Your task to perform on an android device: turn off airplane mode Image 0: 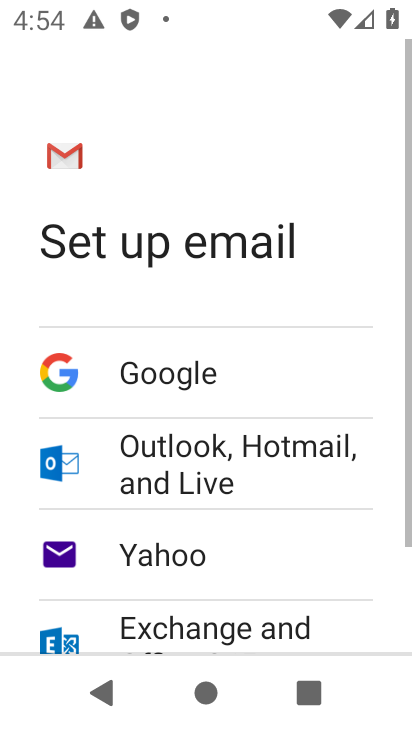
Step 0: drag from (135, 492) to (178, 147)
Your task to perform on an android device: turn off airplane mode Image 1: 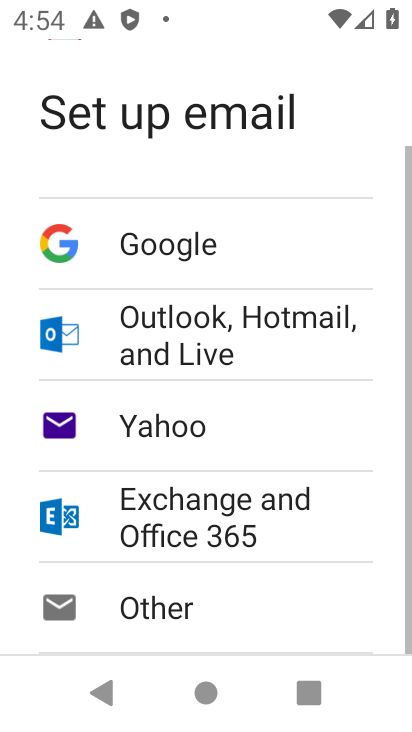
Step 1: task complete